Your task to perform on an android device: Open Google Maps Image 0: 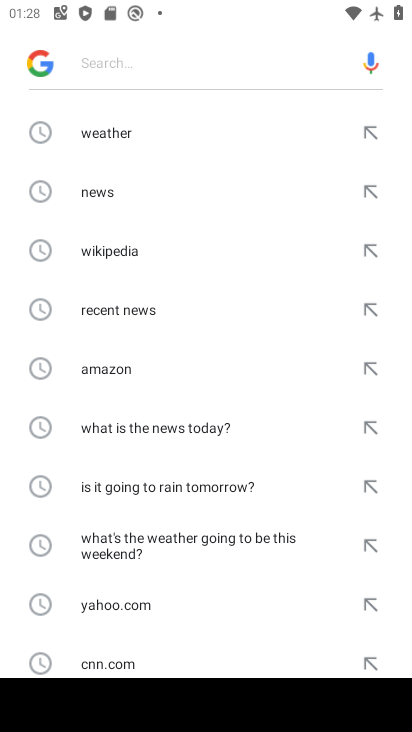
Step 0: press home button
Your task to perform on an android device: Open Google Maps Image 1: 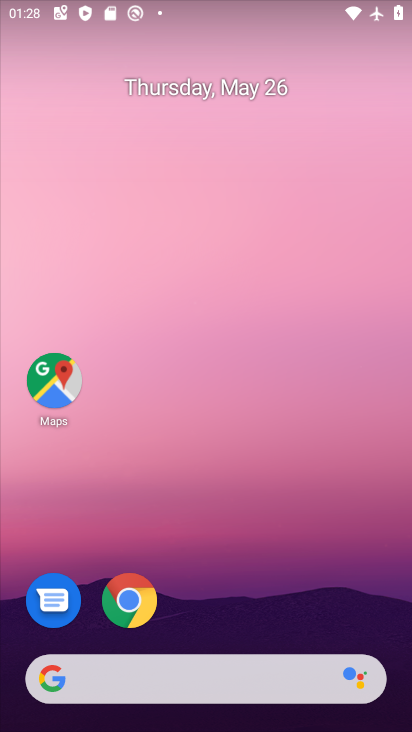
Step 1: click (57, 387)
Your task to perform on an android device: Open Google Maps Image 2: 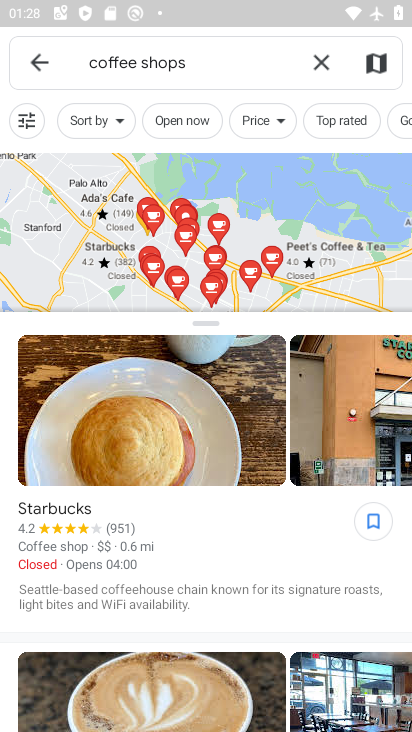
Step 2: task complete